Your task to perform on an android device: Go to internet settings Image 0: 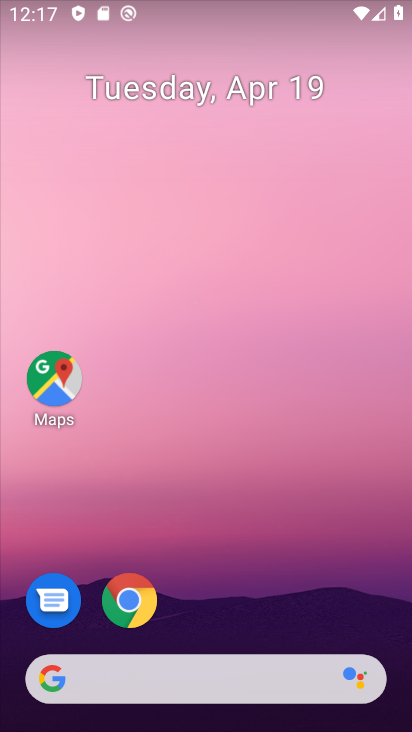
Step 0: drag from (225, 638) to (224, 4)
Your task to perform on an android device: Go to internet settings Image 1: 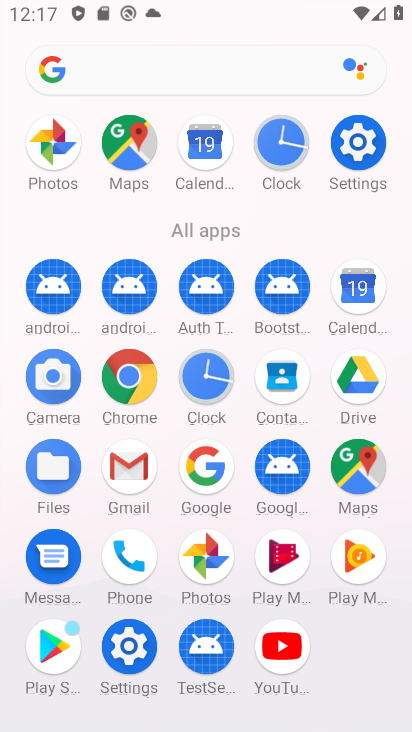
Step 1: click (363, 137)
Your task to perform on an android device: Go to internet settings Image 2: 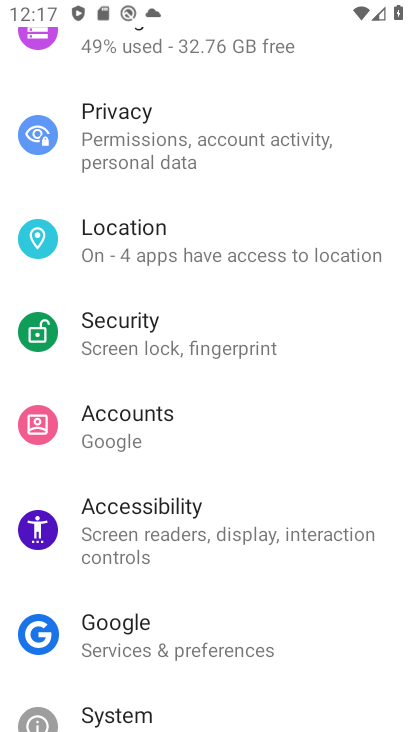
Step 2: drag from (192, 163) to (198, 556)
Your task to perform on an android device: Go to internet settings Image 3: 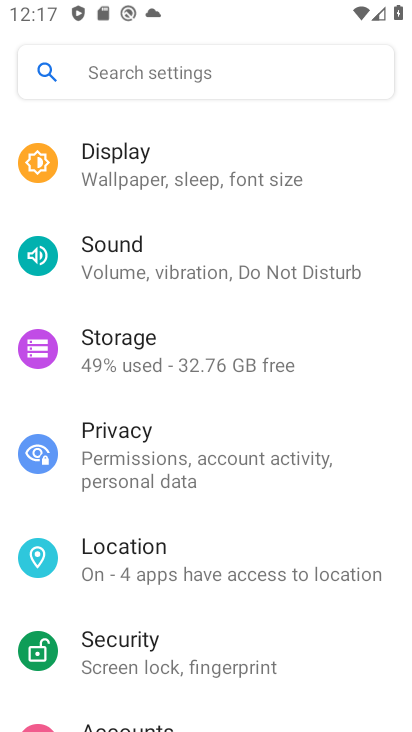
Step 3: drag from (231, 155) to (205, 699)
Your task to perform on an android device: Go to internet settings Image 4: 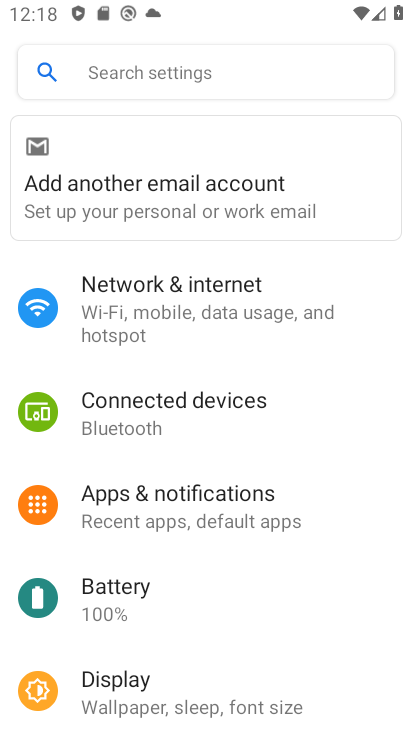
Step 4: click (196, 298)
Your task to perform on an android device: Go to internet settings Image 5: 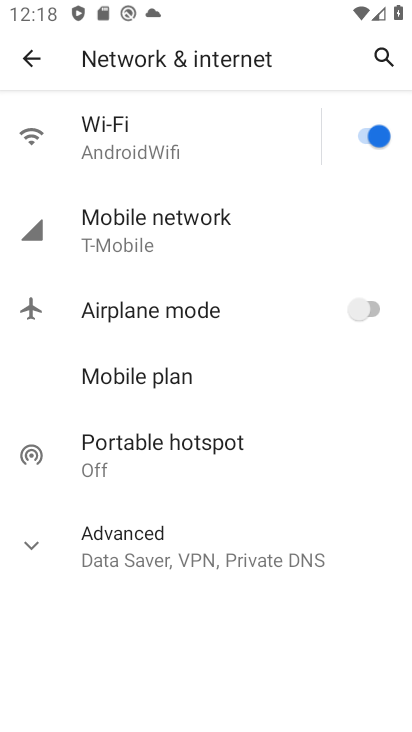
Step 5: click (190, 239)
Your task to perform on an android device: Go to internet settings Image 6: 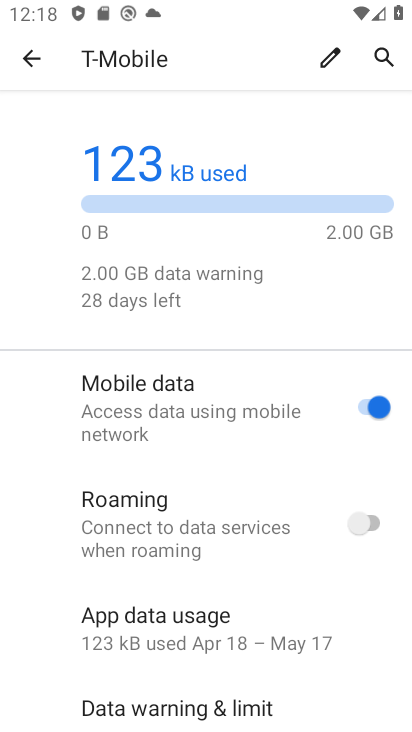
Step 6: task complete